Your task to perform on an android device: toggle wifi Image 0: 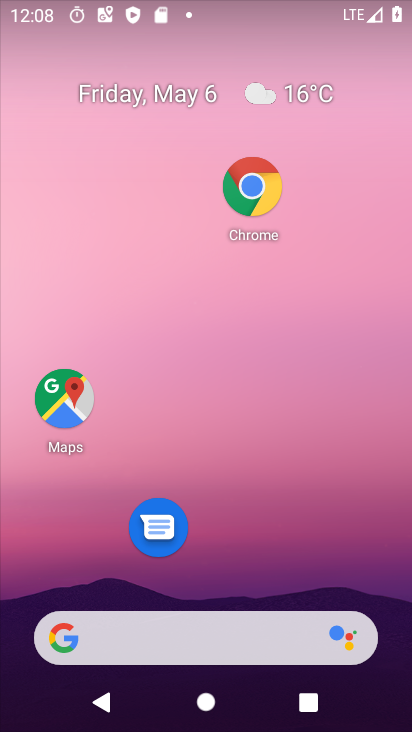
Step 0: drag from (240, 587) to (358, 82)
Your task to perform on an android device: toggle wifi Image 1: 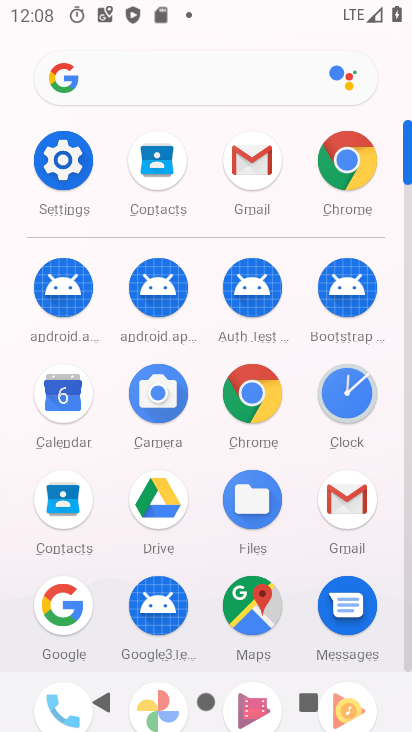
Step 1: click (45, 173)
Your task to perform on an android device: toggle wifi Image 2: 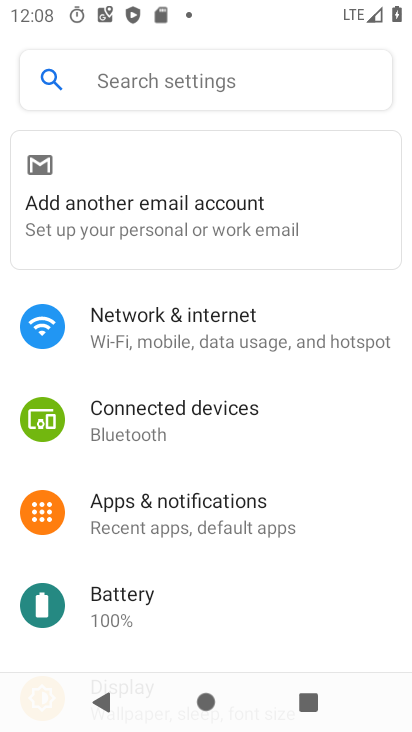
Step 2: click (161, 327)
Your task to perform on an android device: toggle wifi Image 3: 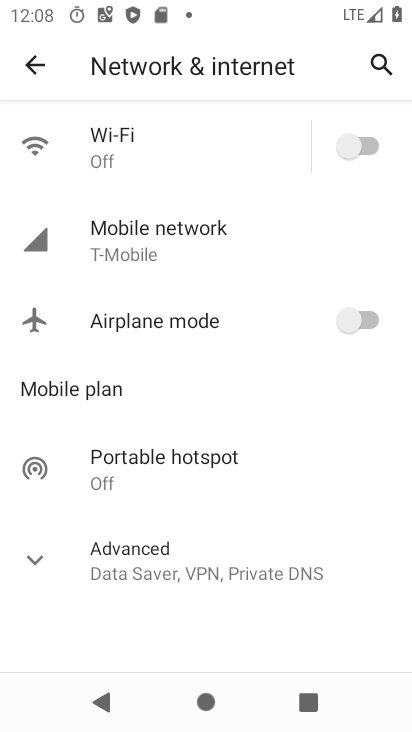
Step 3: click (353, 152)
Your task to perform on an android device: toggle wifi Image 4: 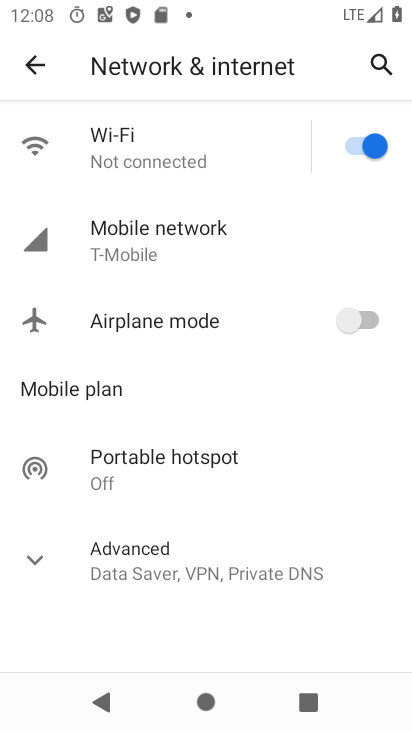
Step 4: task complete